Your task to perform on an android device: toggle sleep mode Image 0: 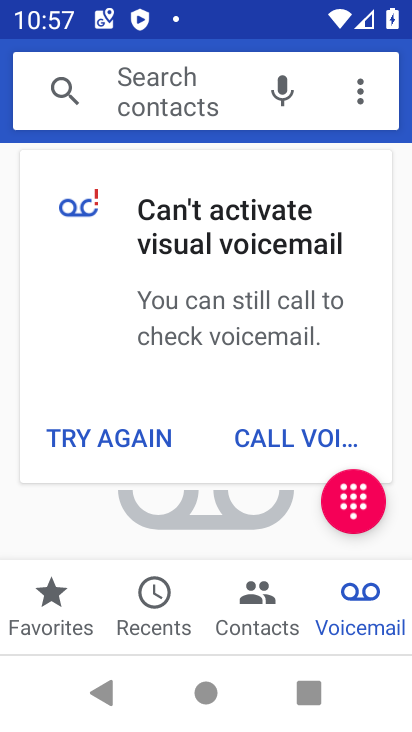
Step 0: press home button
Your task to perform on an android device: toggle sleep mode Image 1: 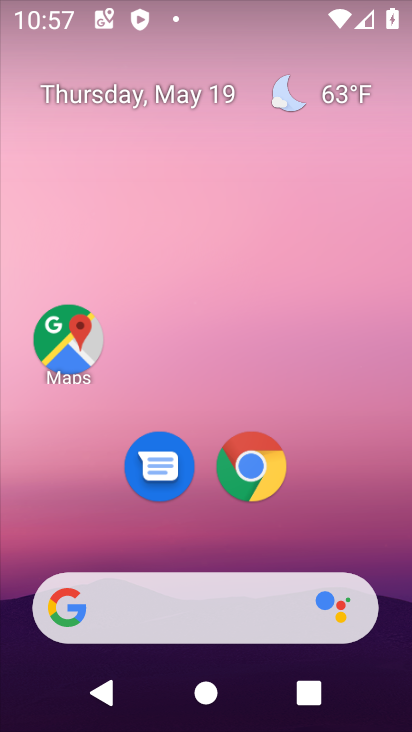
Step 1: drag from (385, 631) to (263, 88)
Your task to perform on an android device: toggle sleep mode Image 2: 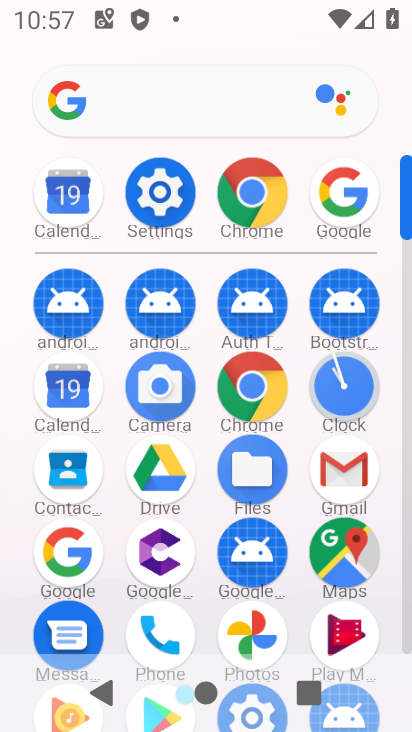
Step 2: click (155, 193)
Your task to perform on an android device: toggle sleep mode Image 3: 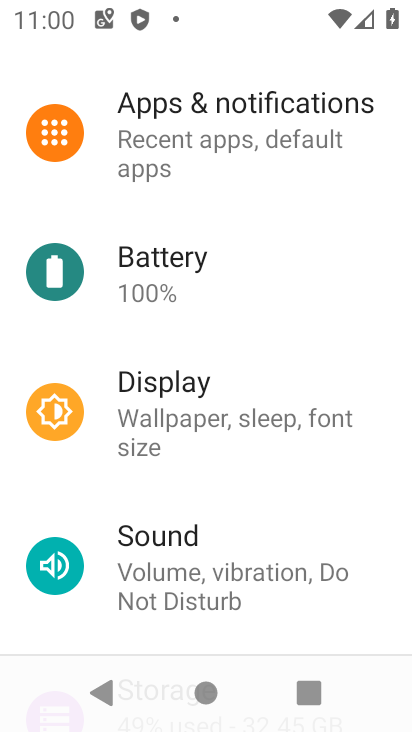
Step 3: task complete